Your task to perform on an android device: check android version Image 0: 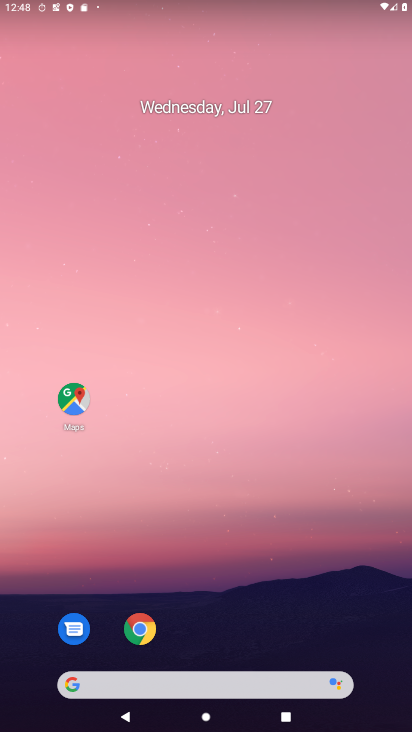
Step 0: drag from (357, 610) to (107, 1)
Your task to perform on an android device: check android version Image 1: 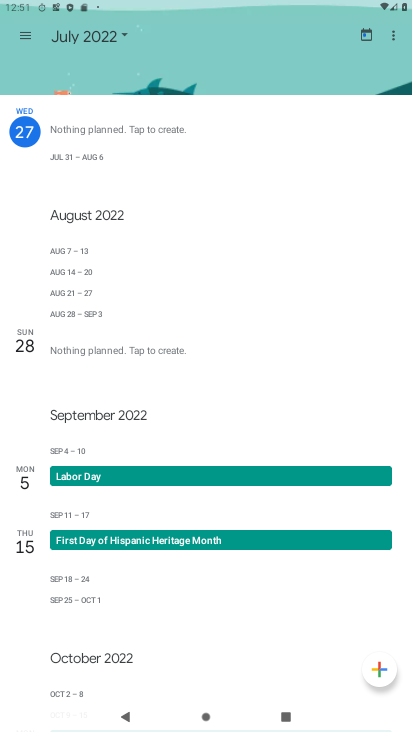
Step 1: press home button
Your task to perform on an android device: check android version Image 2: 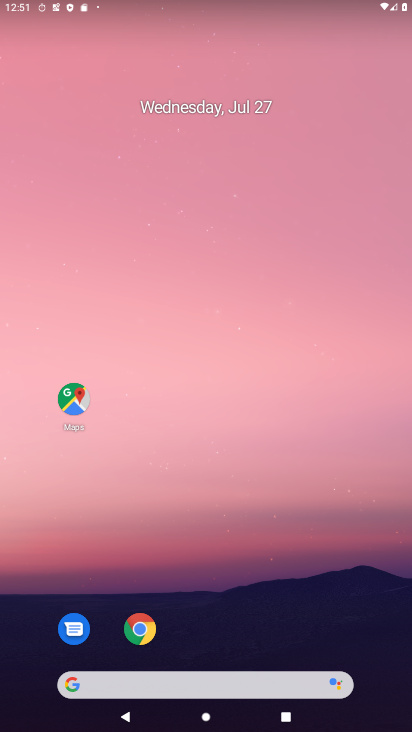
Step 2: drag from (340, 631) to (197, 0)
Your task to perform on an android device: check android version Image 3: 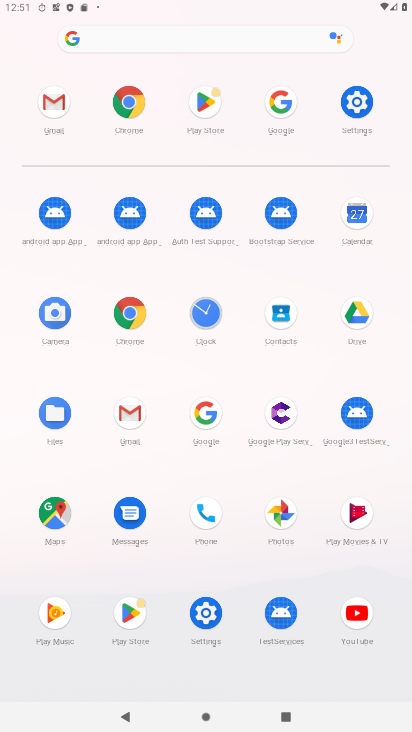
Step 3: click (214, 622)
Your task to perform on an android device: check android version Image 4: 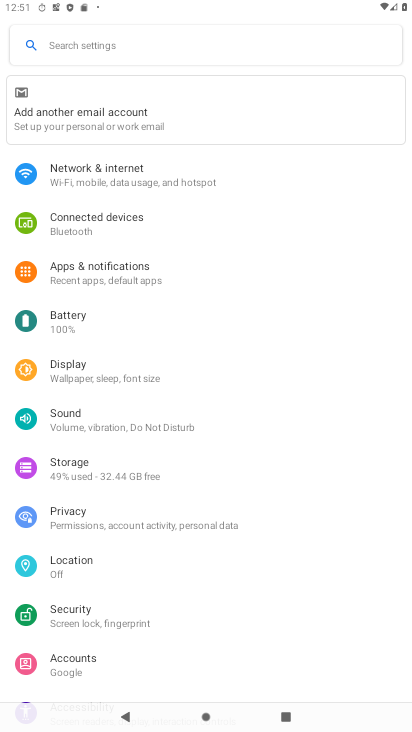
Step 4: drag from (82, 651) to (253, 38)
Your task to perform on an android device: check android version Image 5: 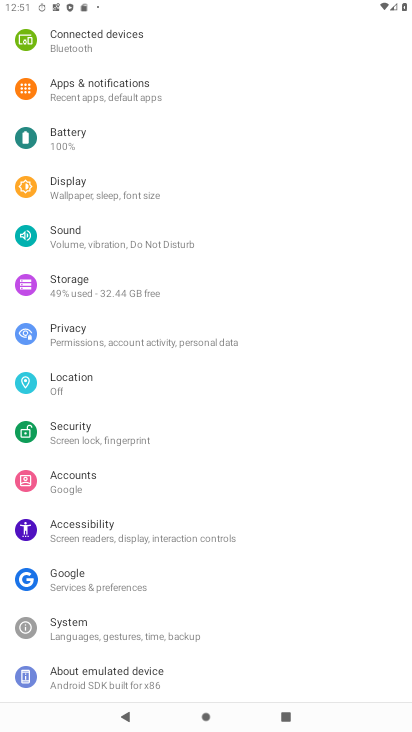
Step 5: click (78, 689)
Your task to perform on an android device: check android version Image 6: 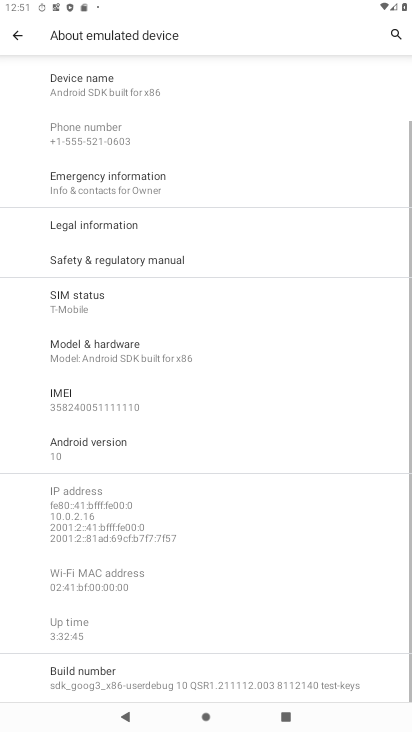
Step 6: click (114, 450)
Your task to perform on an android device: check android version Image 7: 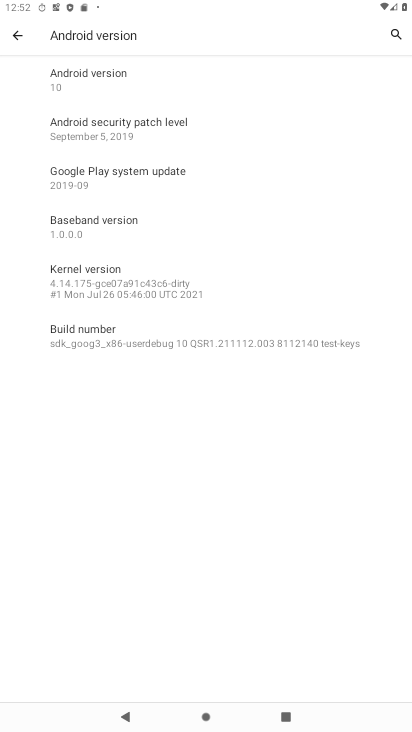
Step 7: task complete